Your task to perform on an android device: open chrome privacy settings Image 0: 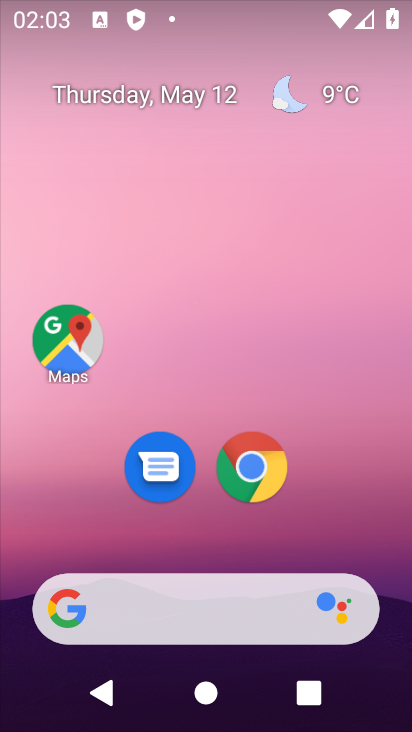
Step 0: drag from (324, 549) to (294, 255)
Your task to perform on an android device: open chrome privacy settings Image 1: 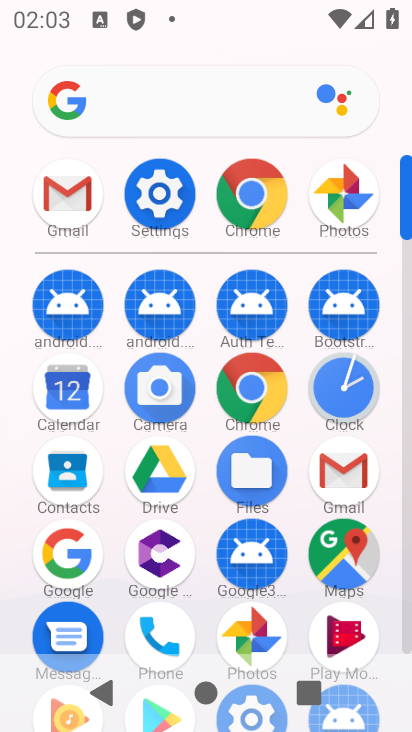
Step 1: click (259, 190)
Your task to perform on an android device: open chrome privacy settings Image 2: 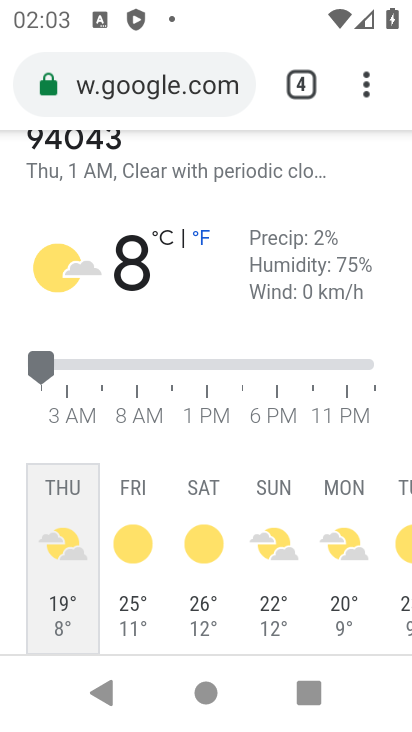
Step 2: click (342, 74)
Your task to perform on an android device: open chrome privacy settings Image 3: 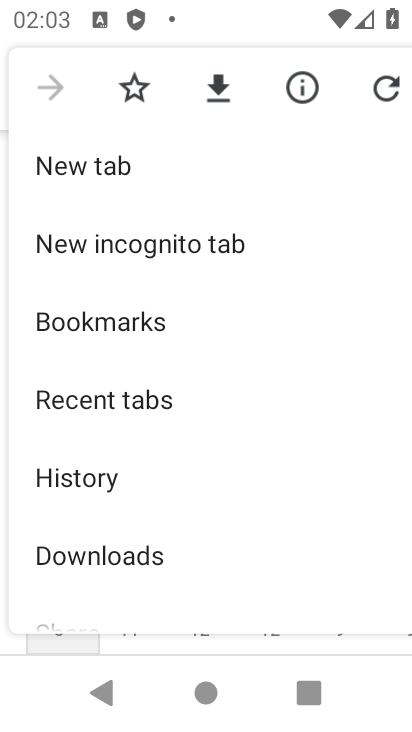
Step 3: drag from (161, 546) to (209, 187)
Your task to perform on an android device: open chrome privacy settings Image 4: 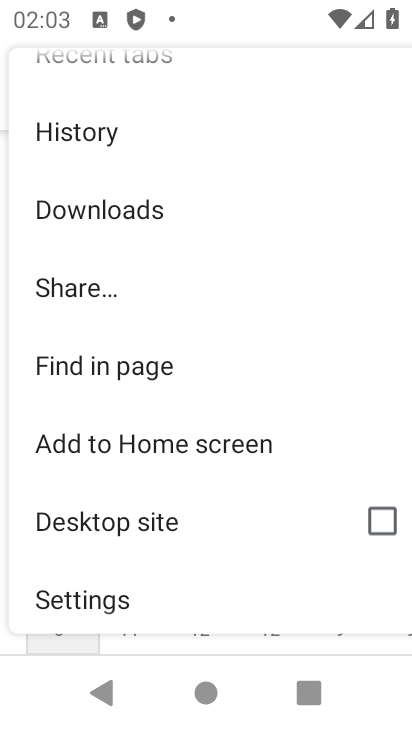
Step 4: drag from (138, 568) to (176, 296)
Your task to perform on an android device: open chrome privacy settings Image 5: 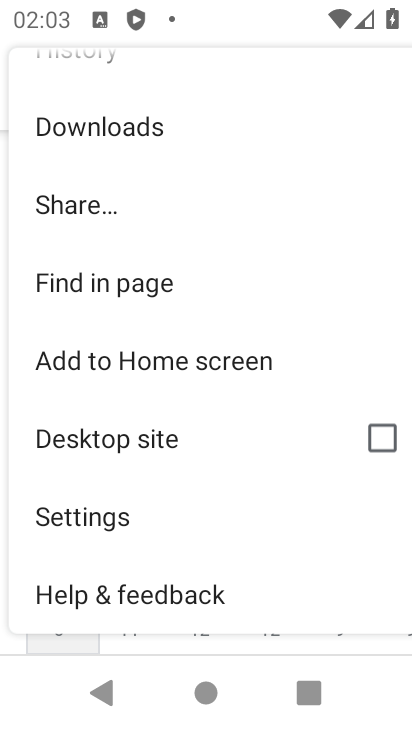
Step 5: click (129, 506)
Your task to perform on an android device: open chrome privacy settings Image 6: 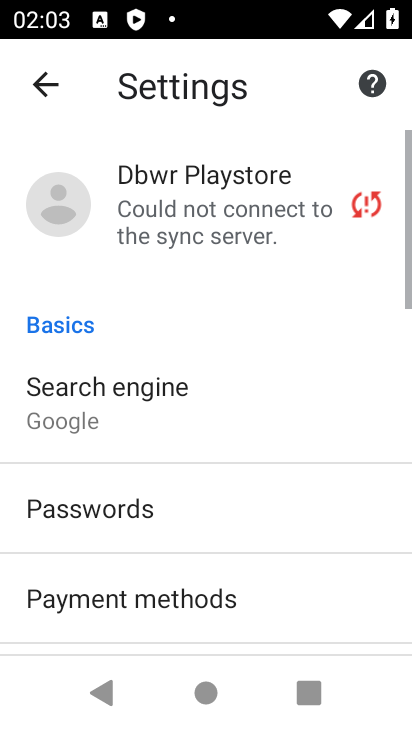
Step 6: drag from (193, 586) to (246, 194)
Your task to perform on an android device: open chrome privacy settings Image 7: 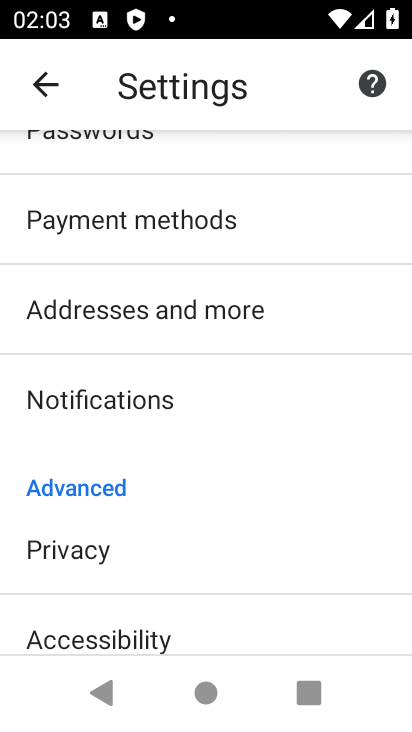
Step 7: click (117, 558)
Your task to perform on an android device: open chrome privacy settings Image 8: 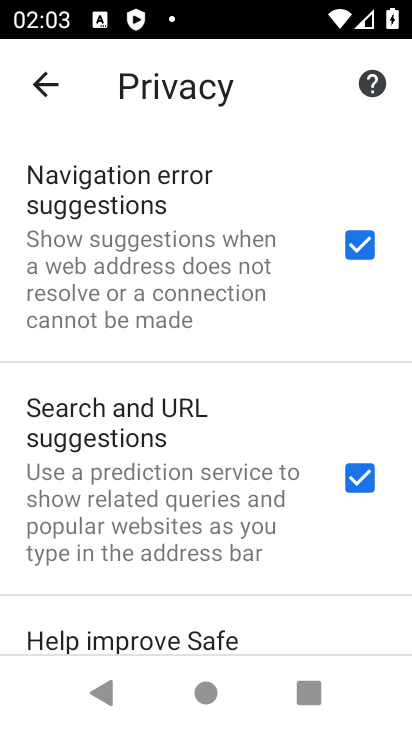
Step 8: task complete